Your task to perform on an android device: Open privacy settings Image 0: 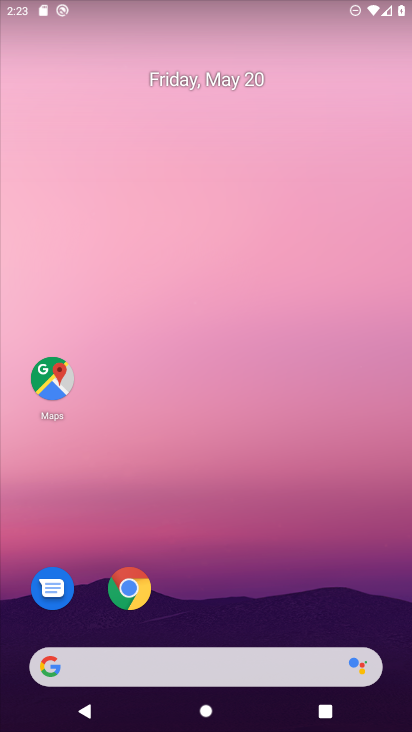
Step 0: drag from (391, 635) to (328, 122)
Your task to perform on an android device: Open privacy settings Image 1: 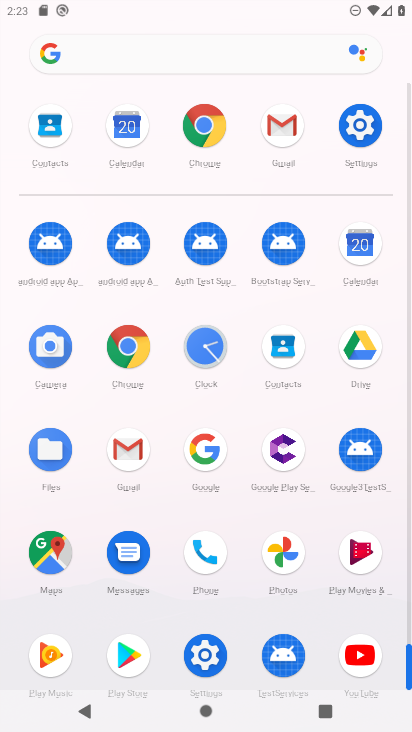
Step 1: click (205, 656)
Your task to perform on an android device: Open privacy settings Image 2: 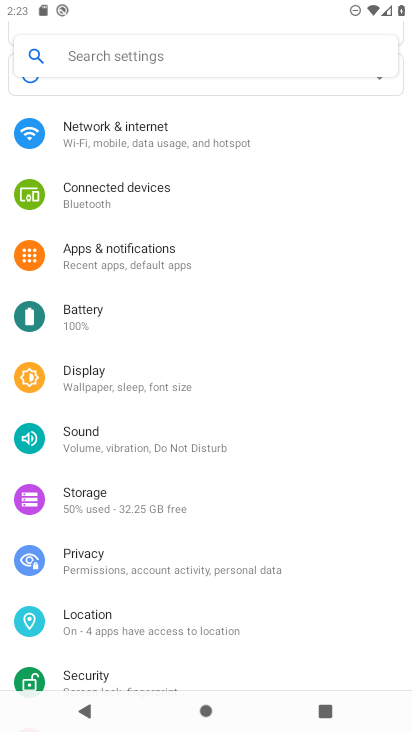
Step 2: click (74, 550)
Your task to perform on an android device: Open privacy settings Image 3: 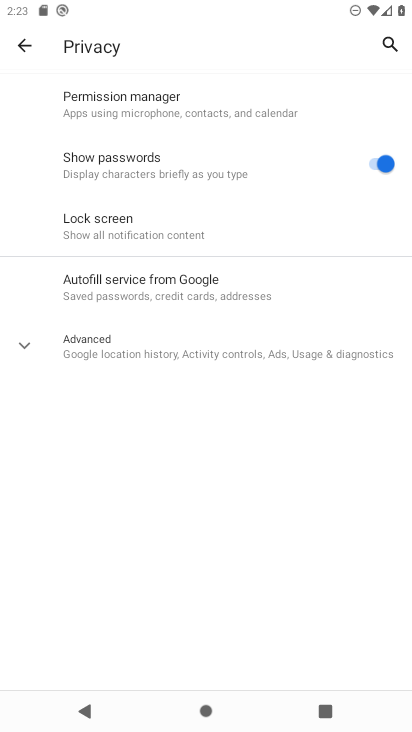
Step 3: click (21, 344)
Your task to perform on an android device: Open privacy settings Image 4: 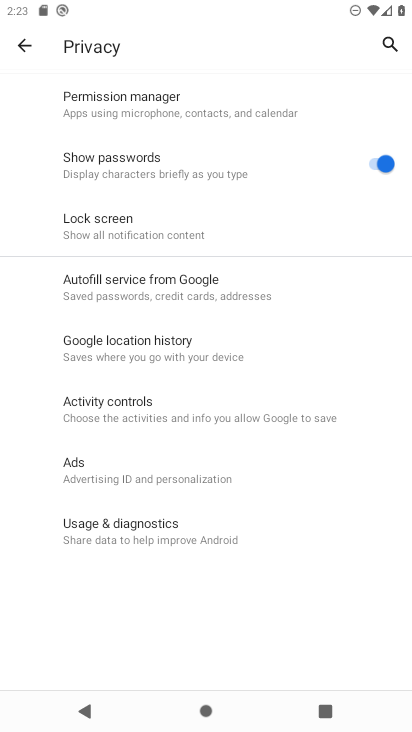
Step 4: task complete